Your task to perform on an android device: Go to wifi settings Image 0: 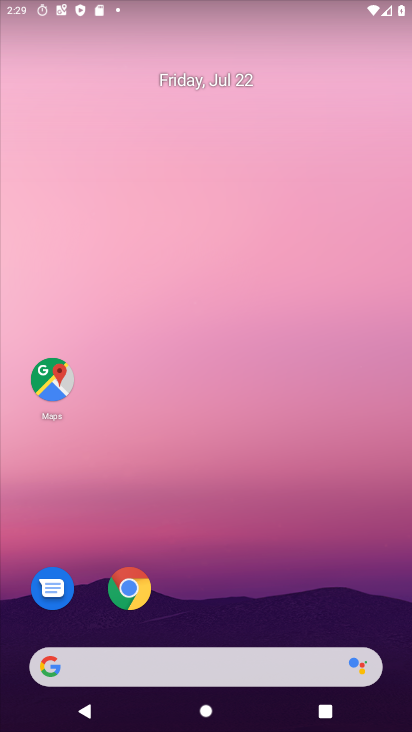
Step 0: drag from (225, 628) to (236, 18)
Your task to perform on an android device: Go to wifi settings Image 1: 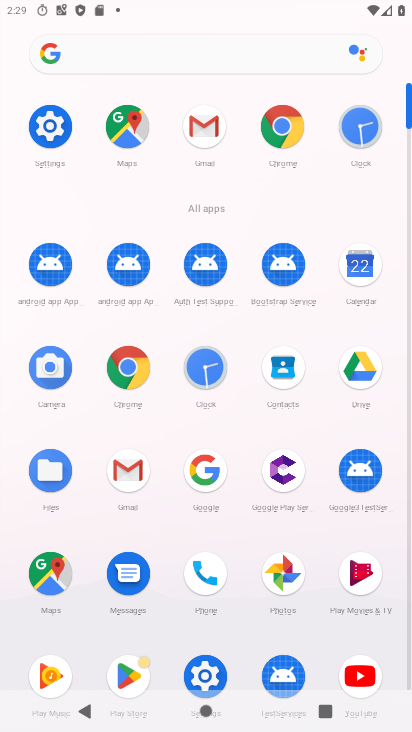
Step 1: click (49, 120)
Your task to perform on an android device: Go to wifi settings Image 2: 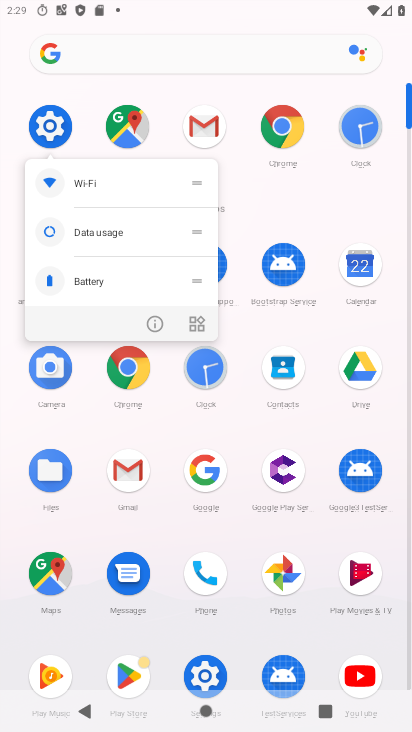
Step 2: click (49, 120)
Your task to perform on an android device: Go to wifi settings Image 3: 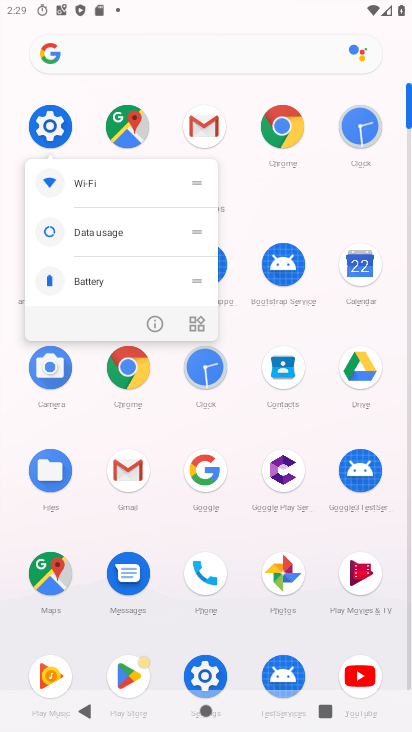
Step 3: click (49, 121)
Your task to perform on an android device: Go to wifi settings Image 4: 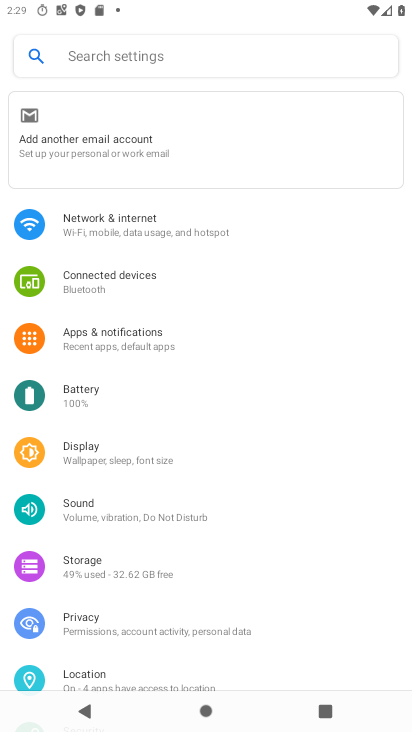
Step 4: click (115, 229)
Your task to perform on an android device: Go to wifi settings Image 5: 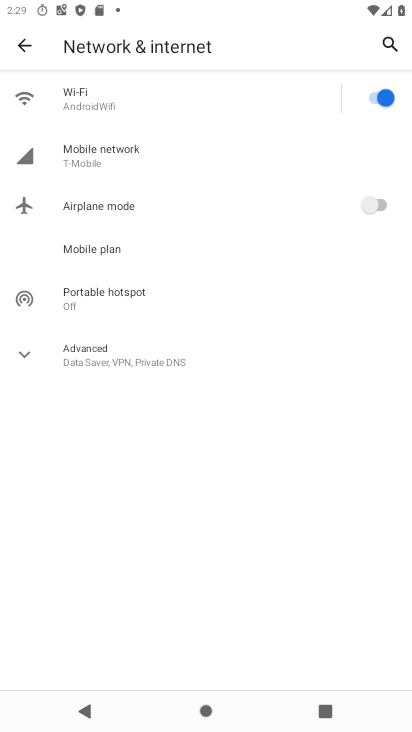
Step 5: task complete